Your task to perform on an android device: What's on my calendar today? Image 0: 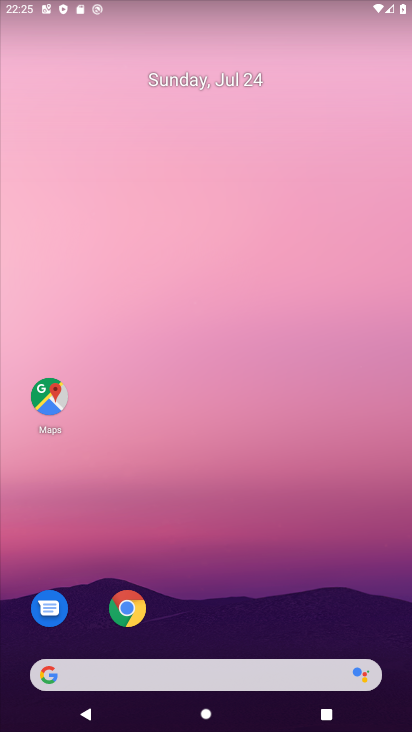
Step 0: drag from (258, 569) to (357, 11)
Your task to perform on an android device: What's on my calendar today? Image 1: 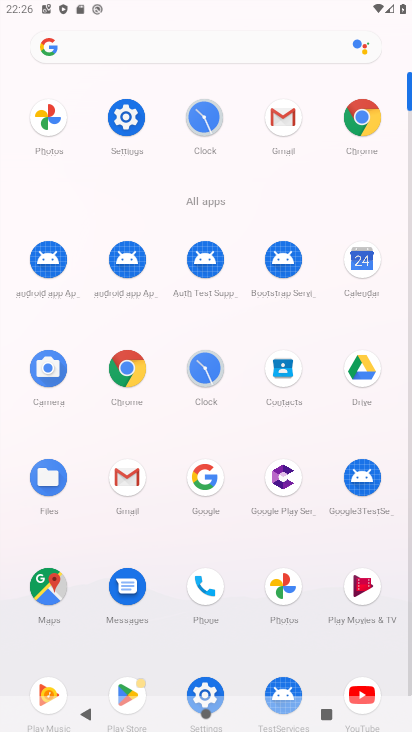
Step 1: click (353, 238)
Your task to perform on an android device: What's on my calendar today? Image 2: 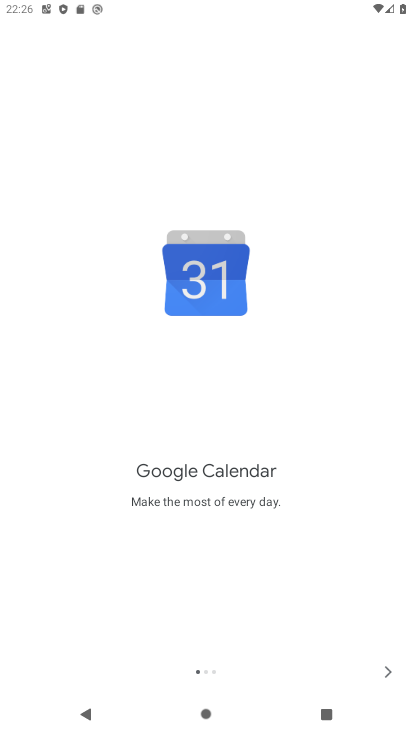
Step 2: click (387, 672)
Your task to perform on an android device: What's on my calendar today? Image 3: 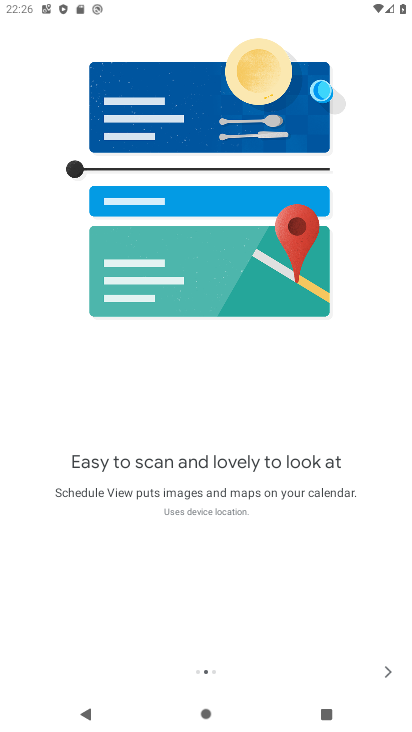
Step 3: click (387, 672)
Your task to perform on an android device: What's on my calendar today? Image 4: 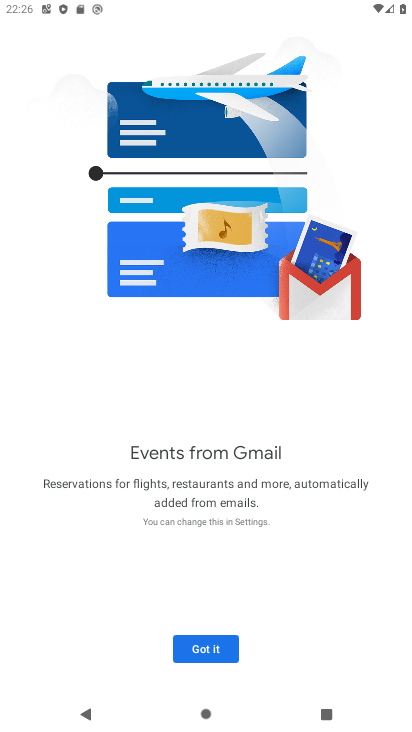
Step 4: click (189, 640)
Your task to perform on an android device: What's on my calendar today? Image 5: 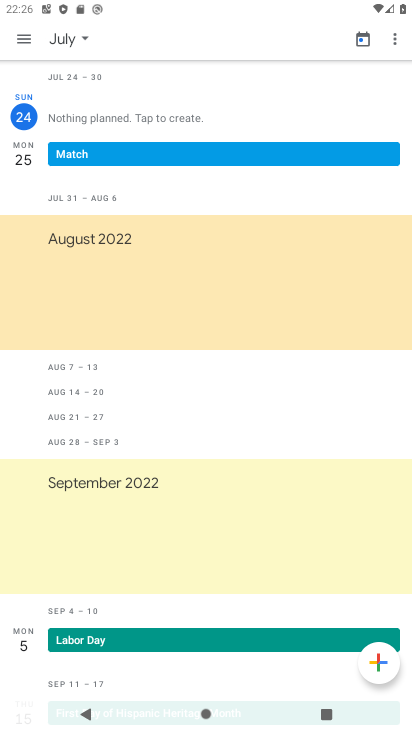
Step 5: click (65, 43)
Your task to perform on an android device: What's on my calendar today? Image 6: 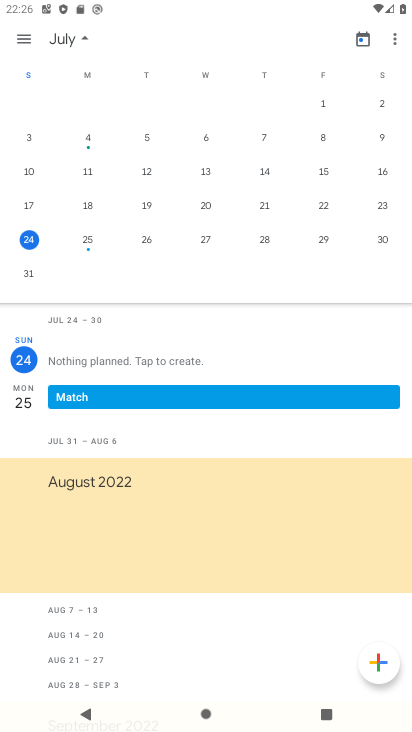
Step 6: click (26, 231)
Your task to perform on an android device: What's on my calendar today? Image 7: 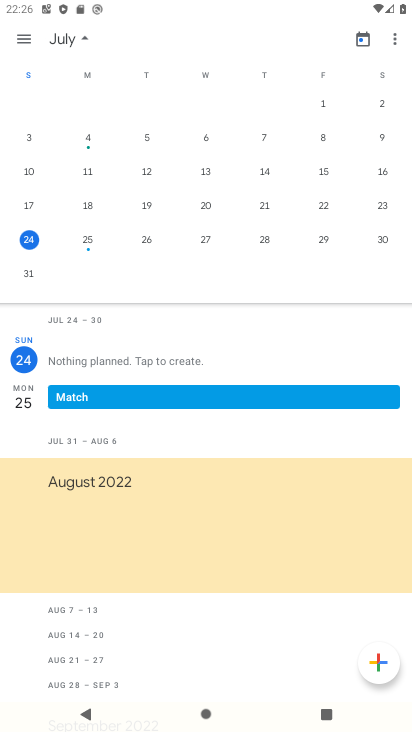
Step 7: task complete